Your task to perform on an android device: Open ESPN.com Image 0: 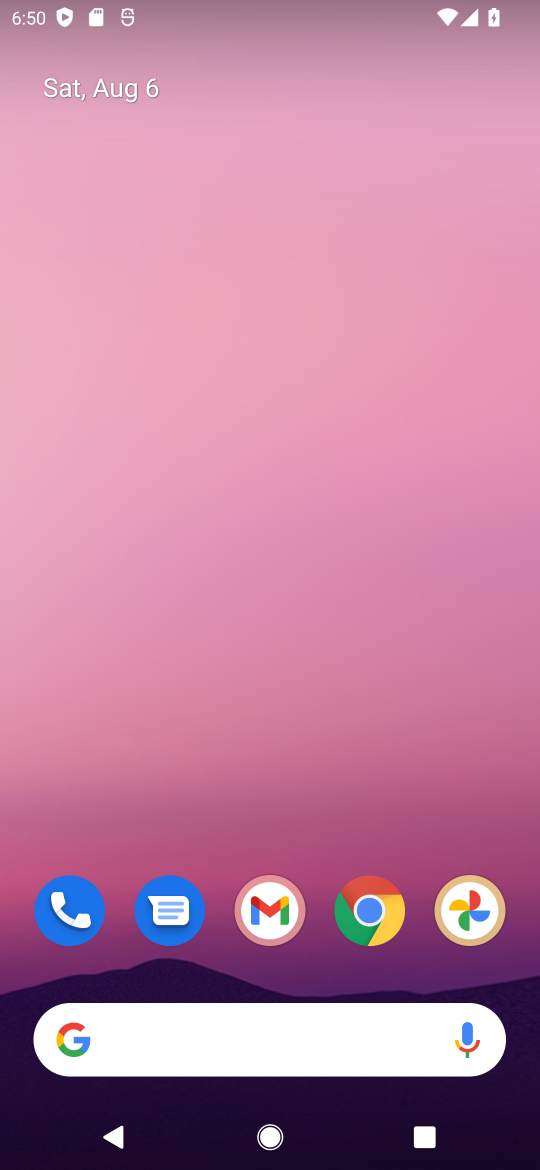
Step 0: click (369, 909)
Your task to perform on an android device: Open ESPN.com Image 1: 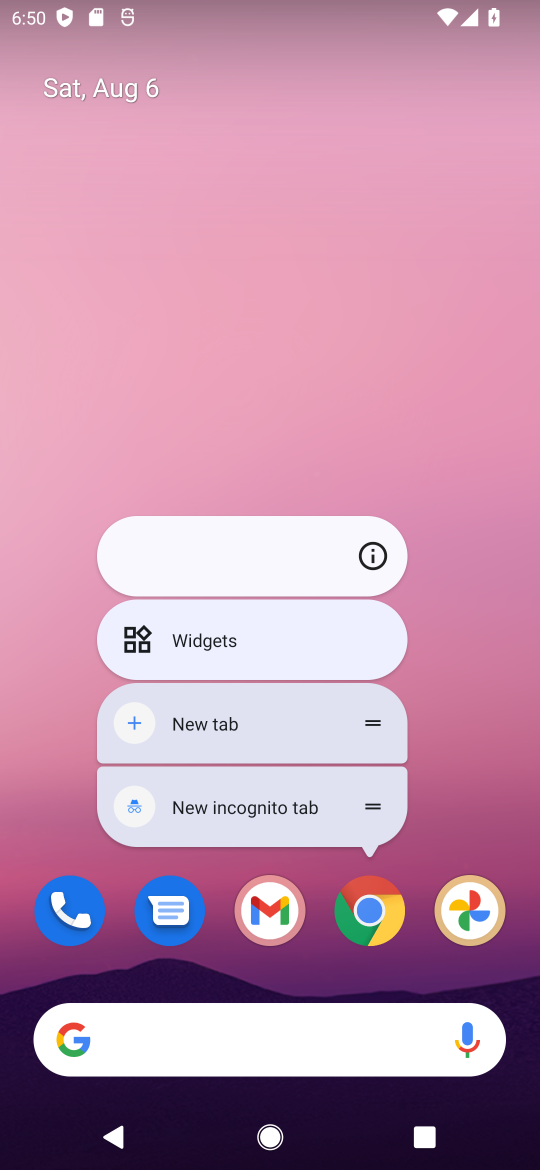
Step 1: click (384, 909)
Your task to perform on an android device: Open ESPN.com Image 2: 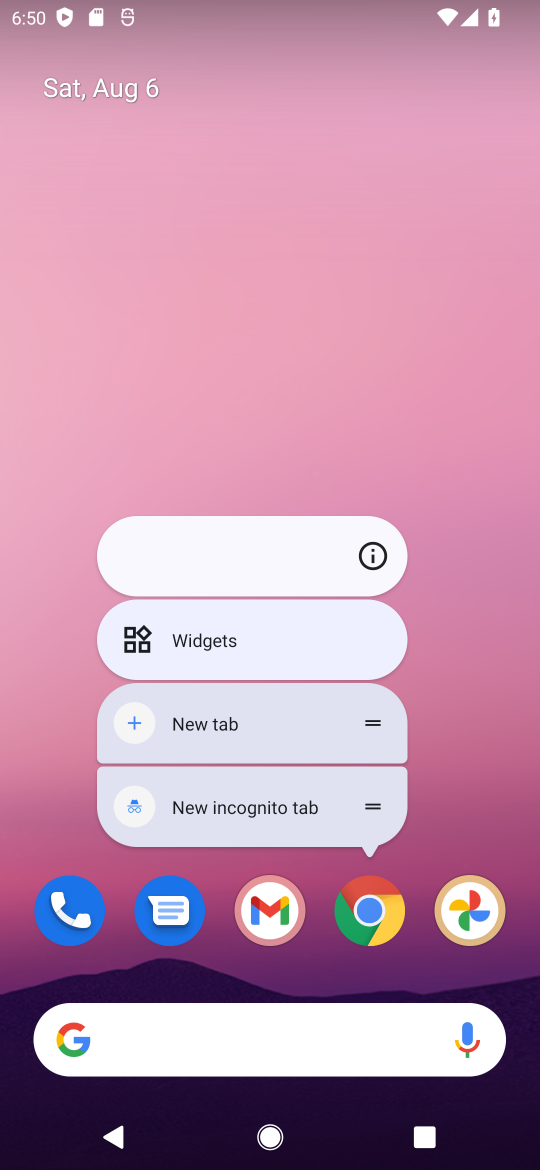
Step 2: click (368, 907)
Your task to perform on an android device: Open ESPN.com Image 3: 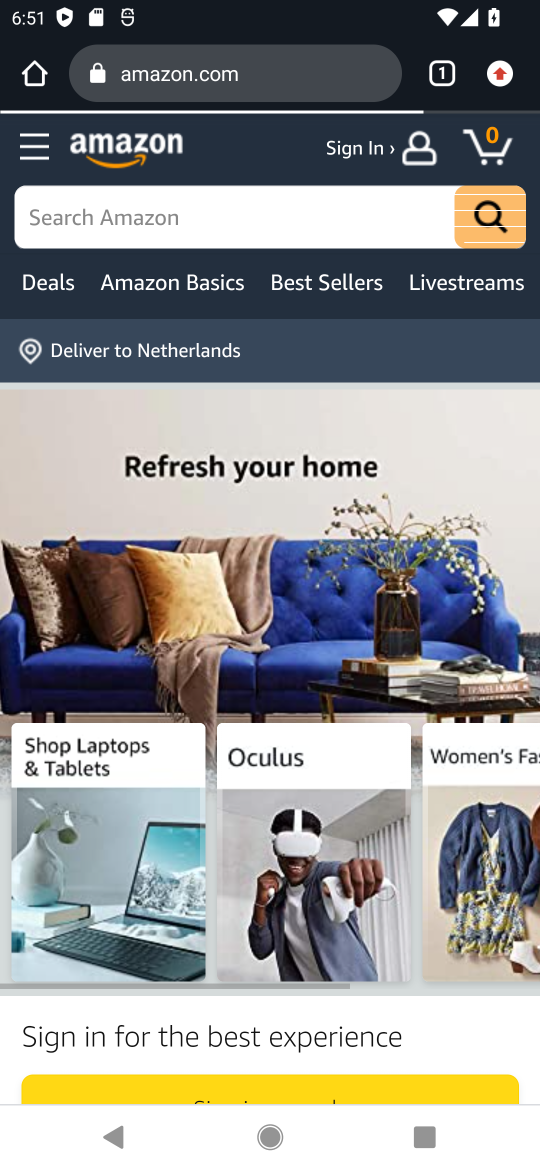
Step 3: click (233, 73)
Your task to perform on an android device: Open ESPN.com Image 4: 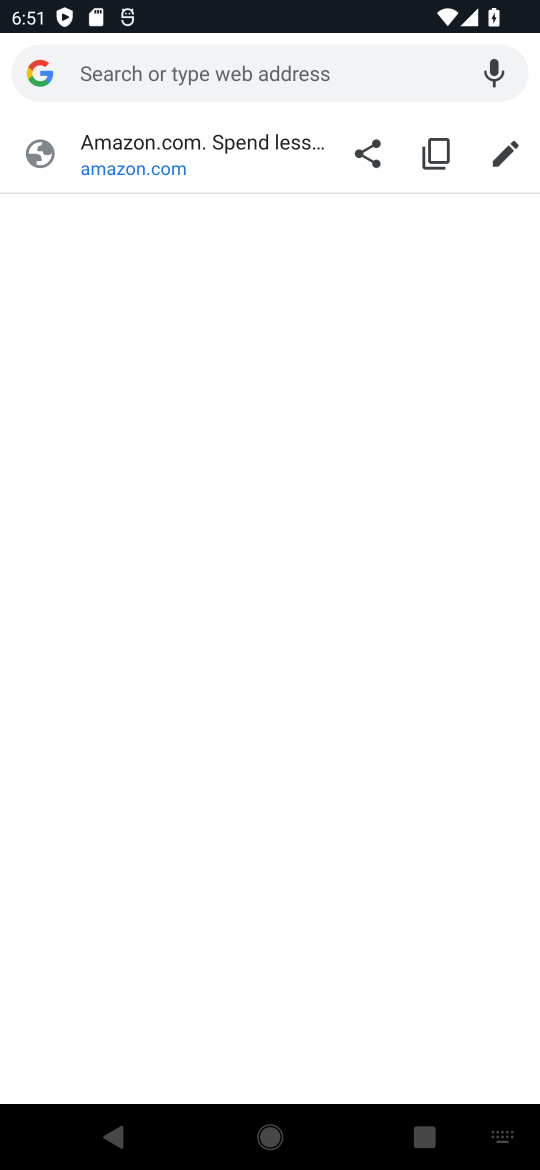
Step 4: type "ESPN.com"
Your task to perform on an android device: Open ESPN.com Image 5: 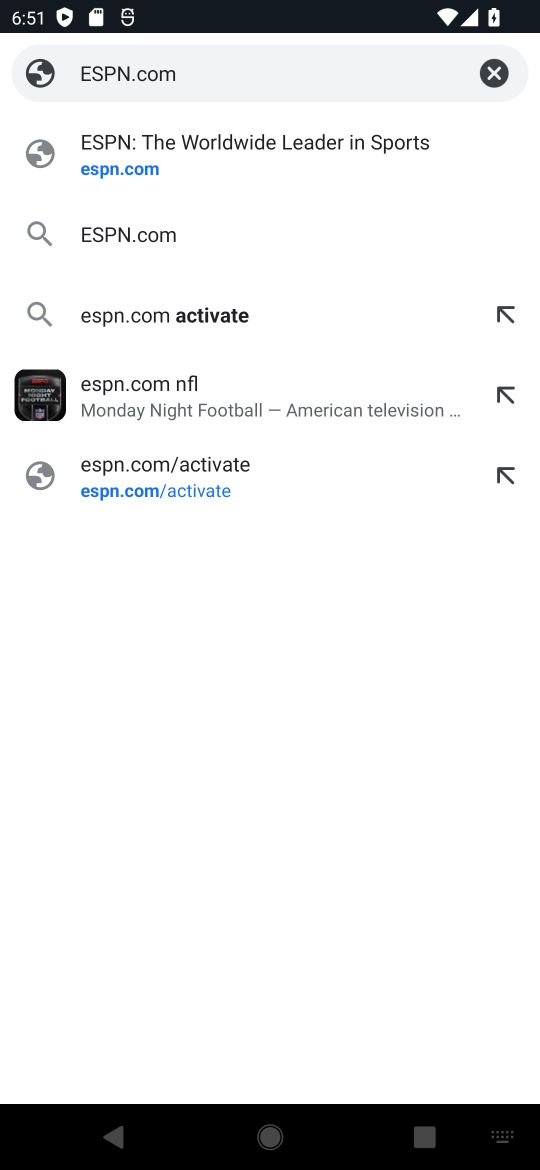
Step 5: click (137, 231)
Your task to perform on an android device: Open ESPN.com Image 6: 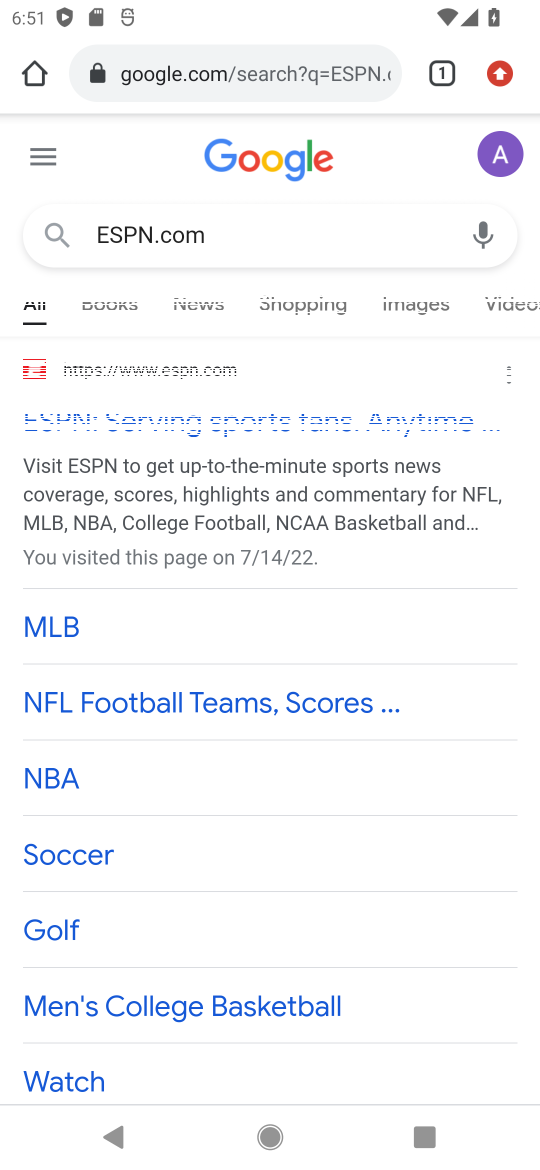
Step 6: task complete